Your task to perform on an android device: turn pop-ups on in chrome Image 0: 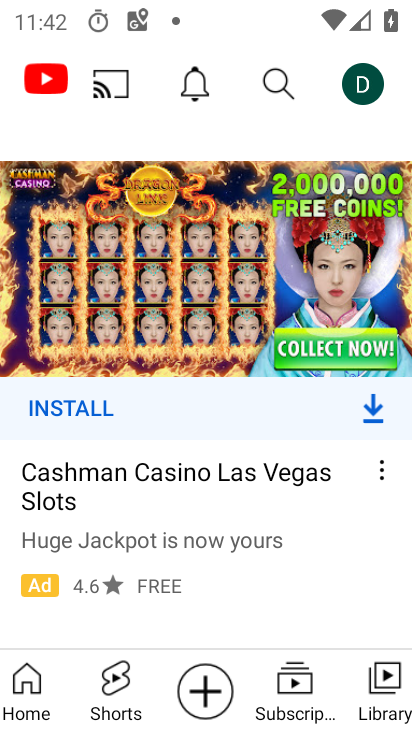
Step 0: press home button
Your task to perform on an android device: turn pop-ups on in chrome Image 1: 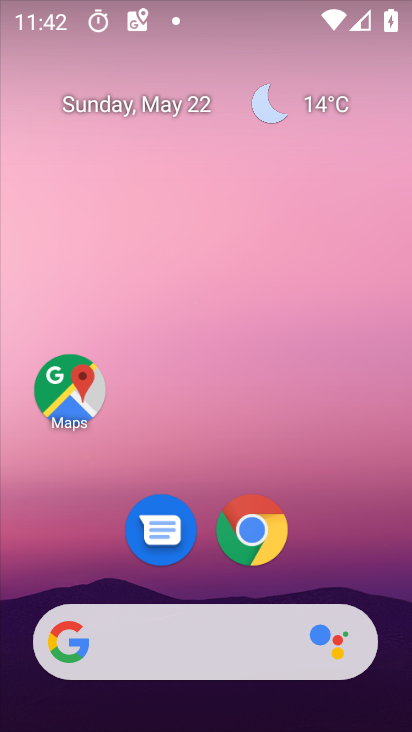
Step 1: click (245, 481)
Your task to perform on an android device: turn pop-ups on in chrome Image 2: 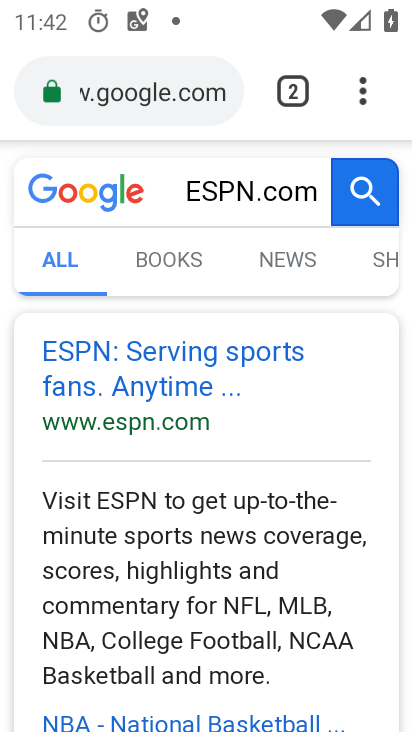
Step 2: click (363, 90)
Your task to perform on an android device: turn pop-ups on in chrome Image 3: 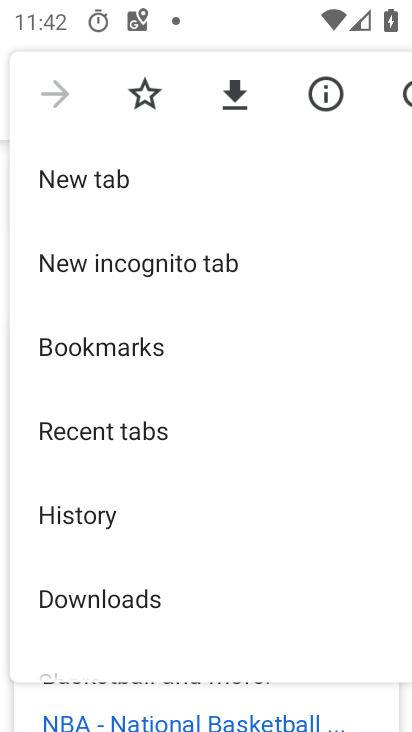
Step 3: drag from (220, 598) to (187, 236)
Your task to perform on an android device: turn pop-ups on in chrome Image 4: 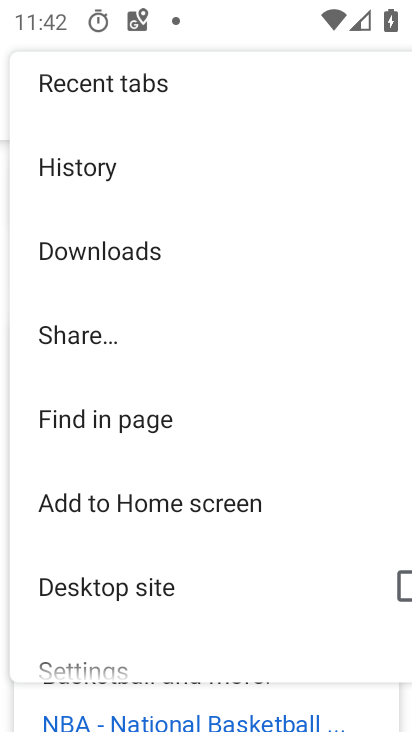
Step 4: click (116, 660)
Your task to perform on an android device: turn pop-ups on in chrome Image 5: 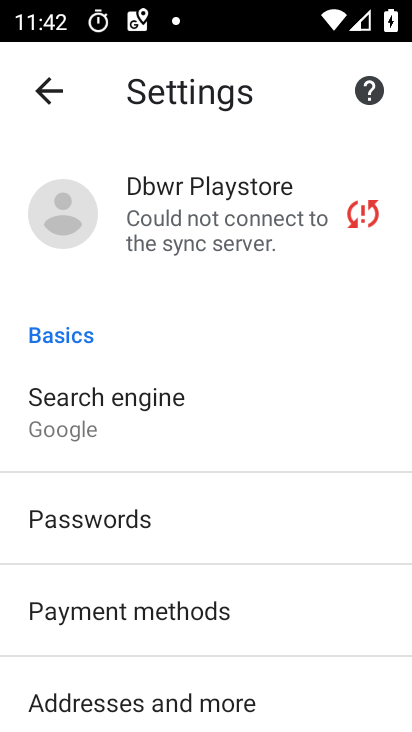
Step 5: drag from (333, 696) to (352, 282)
Your task to perform on an android device: turn pop-ups on in chrome Image 6: 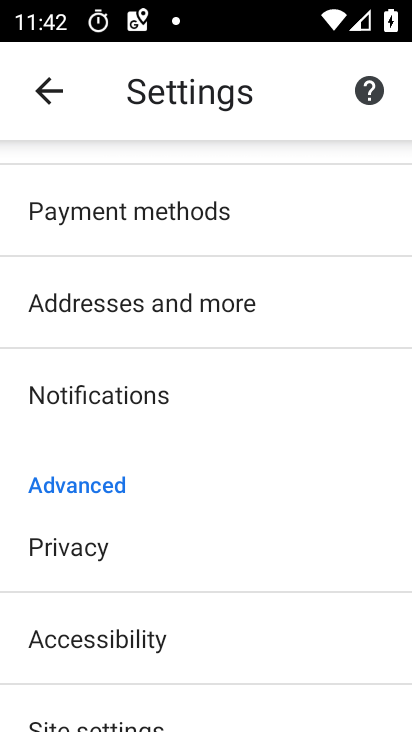
Step 6: drag from (213, 697) to (224, 386)
Your task to perform on an android device: turn pop-ups on in chrome Image 7: 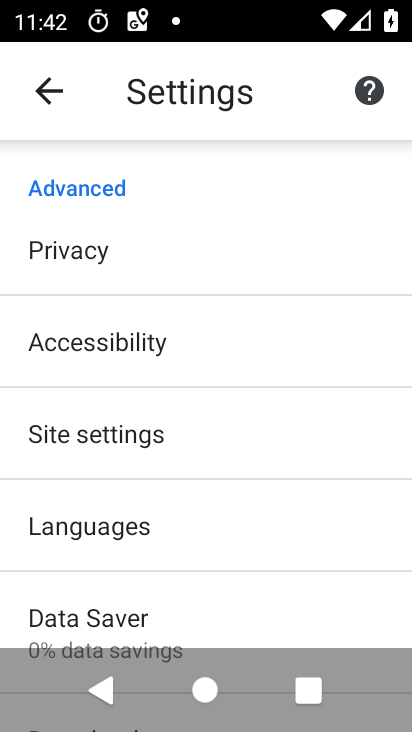
Step 7: click (90, 437)
Your task to perform on an android device: turn pop-ups on in chrome Image 8: 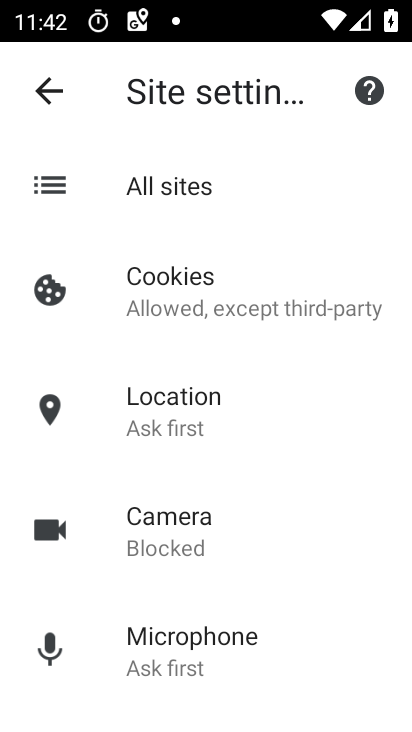
Step 8: drag from (301, 678) to (270, 249)
Your task to perform on an android device: turn pop-ups on in chrome Image 9: 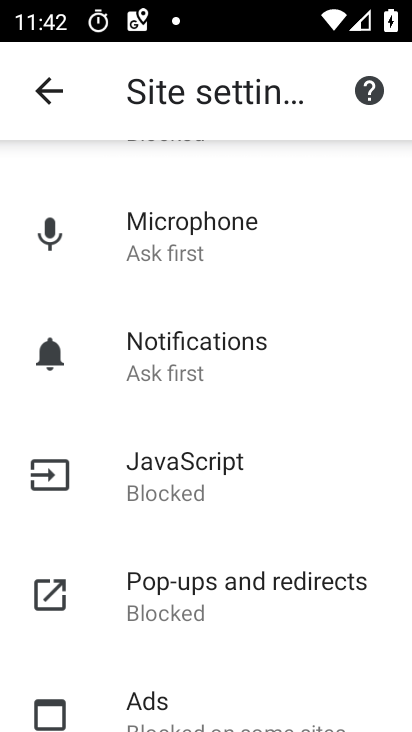
Step 9: click (156, 581)
Your task to perform on an android device: turn pop-ups on in chrome Image 10: 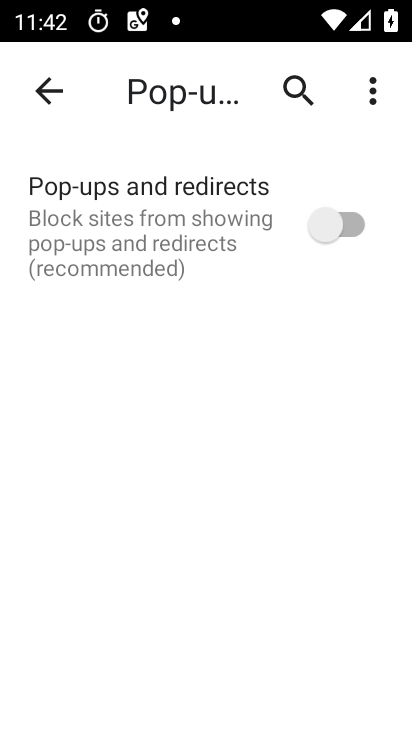
Step 10: click (357, 230)
Your task to perform on an android device: turn pop-ups on in chrome Image 11: 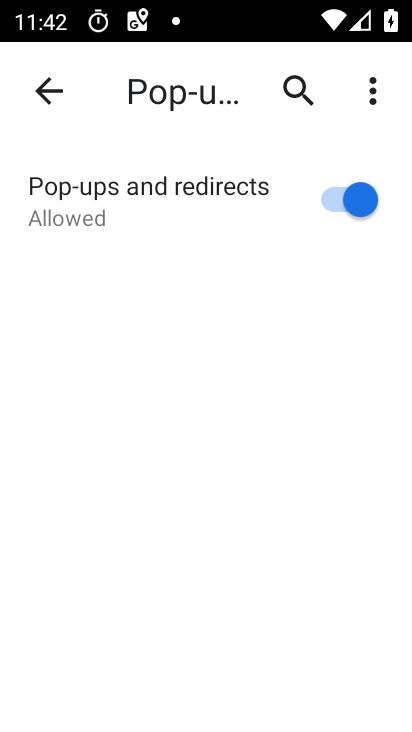
Step 11: task complete